Your task to perform on an android device: toggle improve location accuracy Image 0: 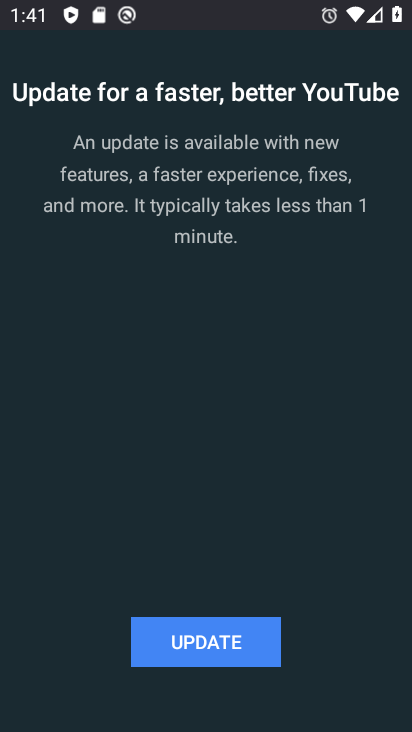
Step 0: press home button
Your task to perform on an android device: toggle improve location accuracy Image 1: 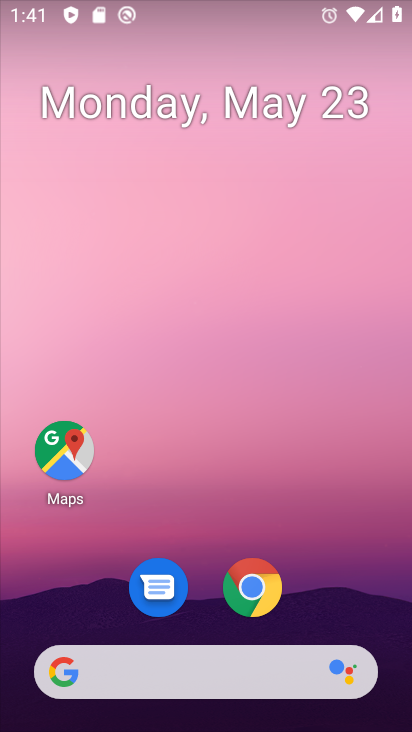
Step 1: drag from (394, 580) to (321, 210)
Your task to perform on an android device: toggle improve location accuracy Image 2: 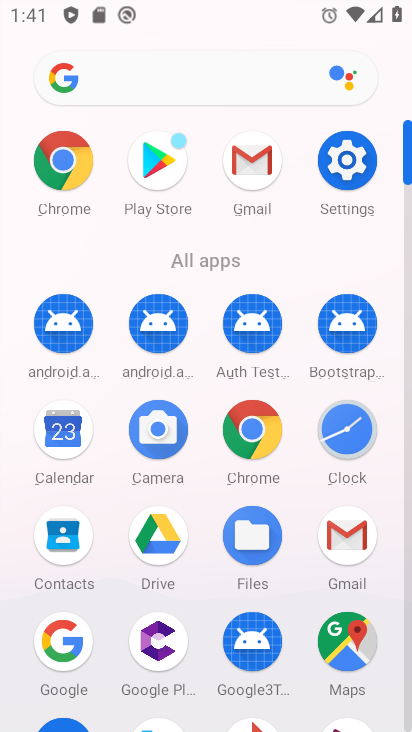
Step 2: click (356, 183)
Your task to perform on an android device: toggle improve location accuracy Image 3: 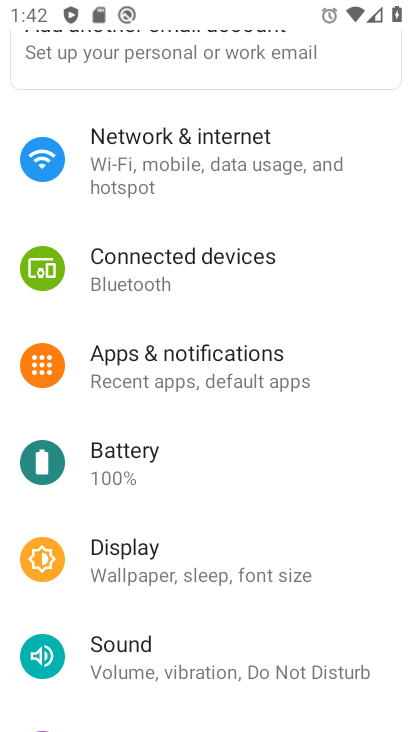
Step 3: drag from (275, 481) to (265, 412)
Your task to perform on an android device: toggle improve location accuracy Image 4: 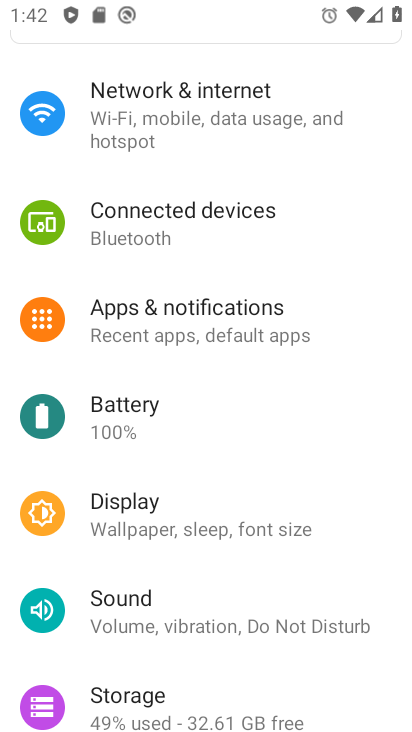
Step 4: drag from (208, 555) to (207, 452)
Your task to perform on an android device: toggle improve location accuracy Image 5: 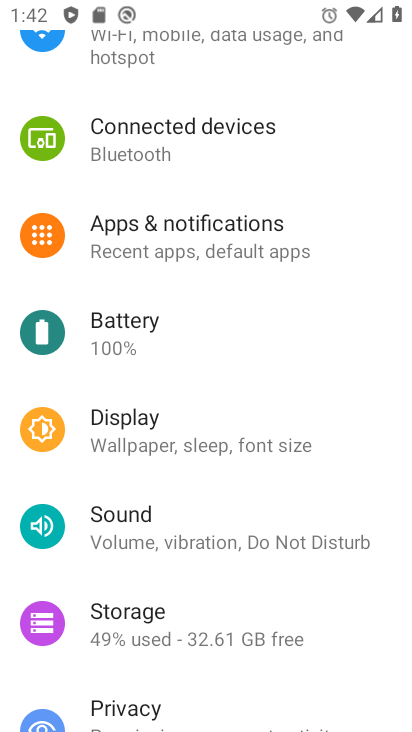
Step 5: drag from (216, 662) to (216, 468)
Your task to perform on an android device: toggle improve location accuracy Image 6: 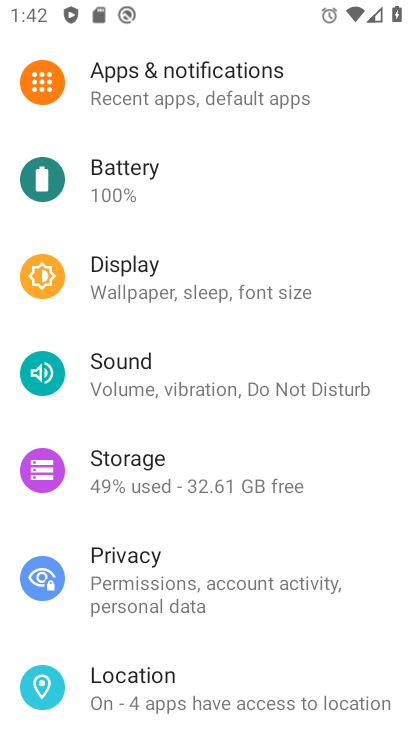
Step 6: click (217, 685)
Your task to perform on an android device: toggle improve location accuracy Image 7: 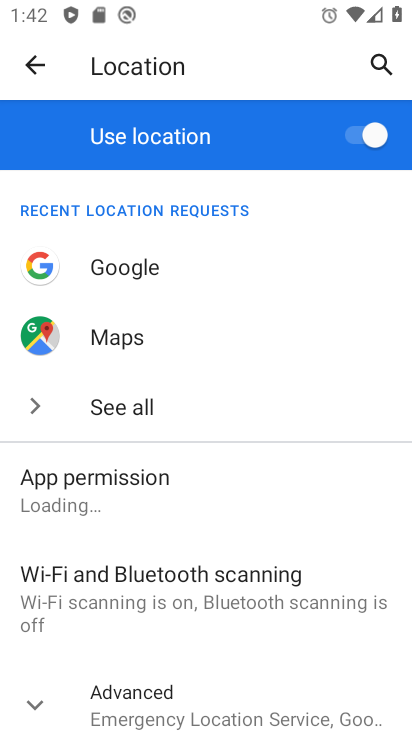
Step 7: drag from (239, 543) to (235, 391)
Your task to perform on an android device: toggle improve location accuracy Image 8: 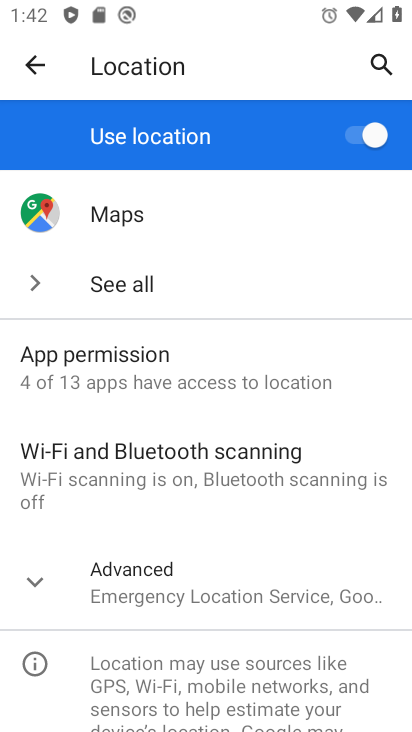
Step 8: click (237, 581)
Your task to perform on an android device: toggle improve location accuracy Image 9: 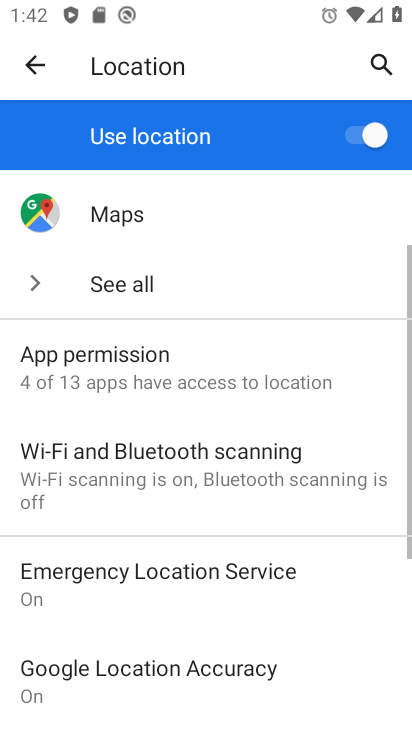
Step 9: drag from (237, 581) to (205, 379)
Your task to perform on an android device: toggle improve location accuracy Image 10: 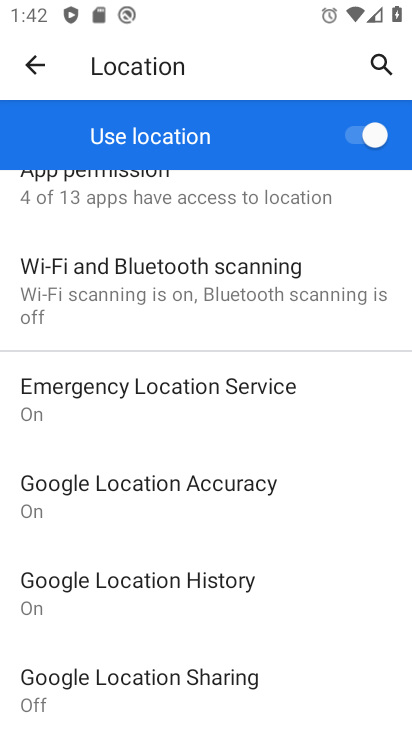
Step 10: click (205, 542)
Your task to perform on an android device: toggle improve location accuracy Image 11: 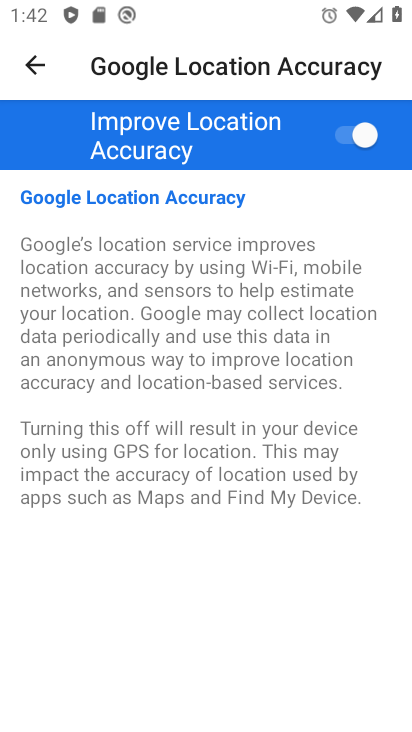
Step 11: click (383, 108)
Your task to perform on an android device: toggle improve location accuracy Image 12: 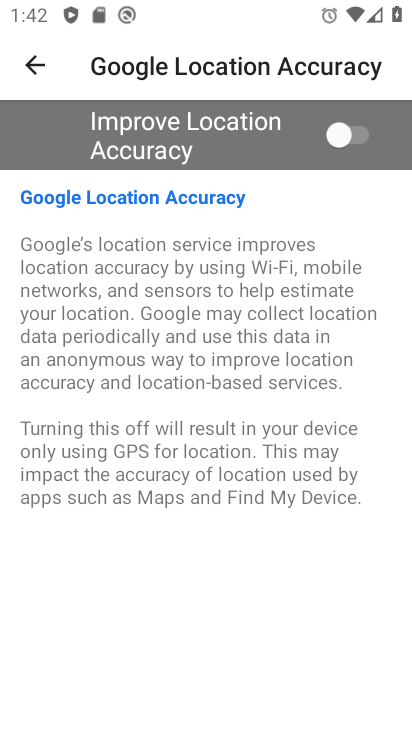
Step 12: task complete